Your task to perform on an android device: add a label to a message in the gmail app Image 0: 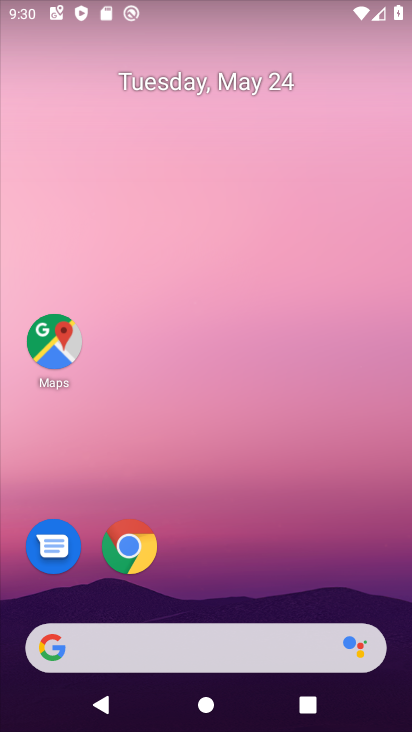
Step 0: drag from (293, 512) to (281, 46)
Your task to perform on an android device: add a label to a message in the gmail app Image 1: 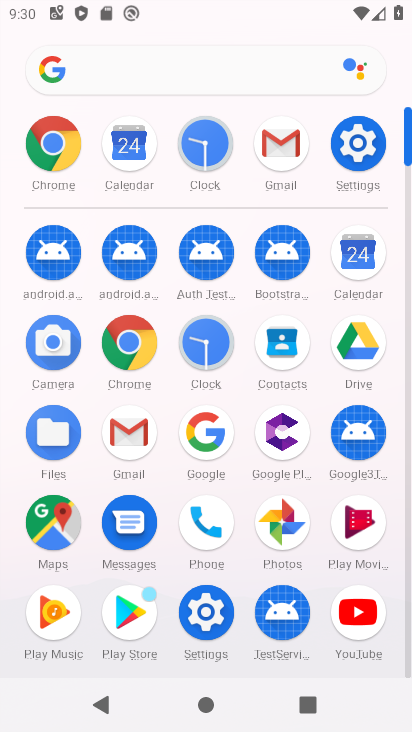
Step 1: click (277, 147)
Your task to perform on an android device: add a label to a message in the gmail app Image 2: 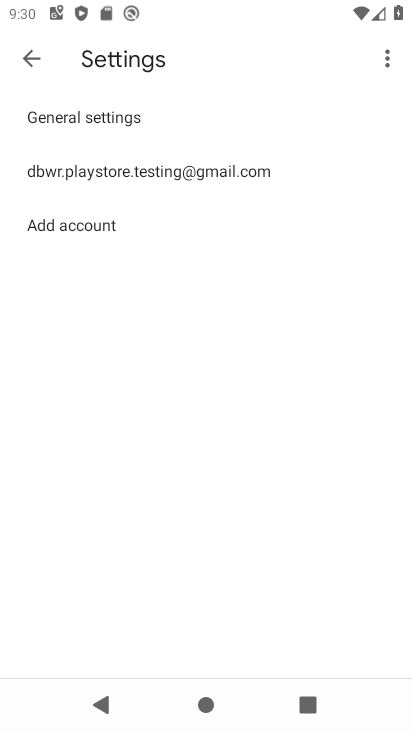
Step 2: click (25, 61)
Your task to perform on an android device: add a label to a message in the gmail app Image 3: 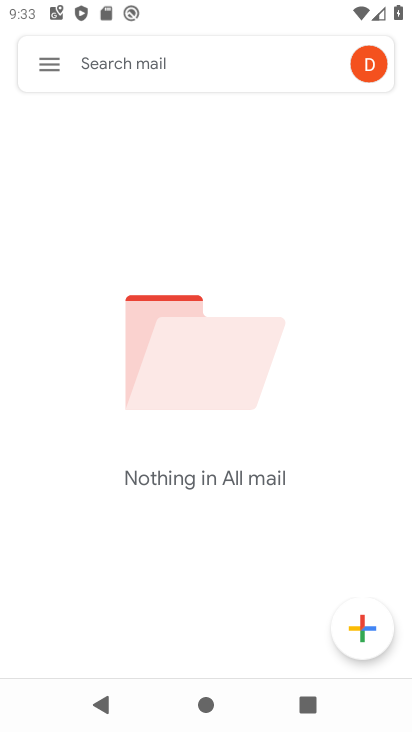
Step 3: task complete